Your task to perform on an android device: Go to Google maps Image 0: 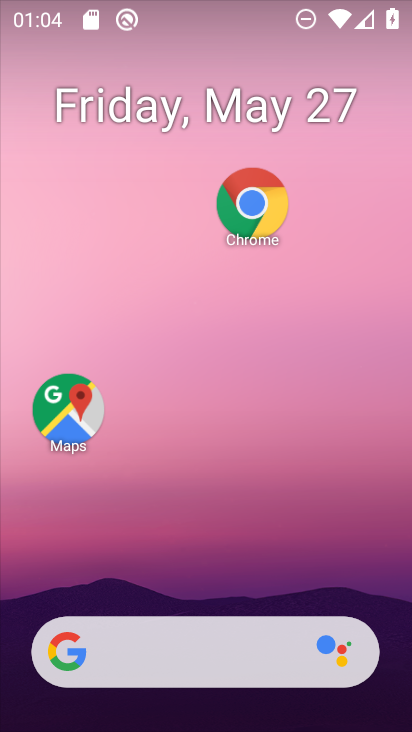
Step 0: drag from (166, 596) to (107, 109)
Your task to perform on an android device: Go to Google maps Image 1: 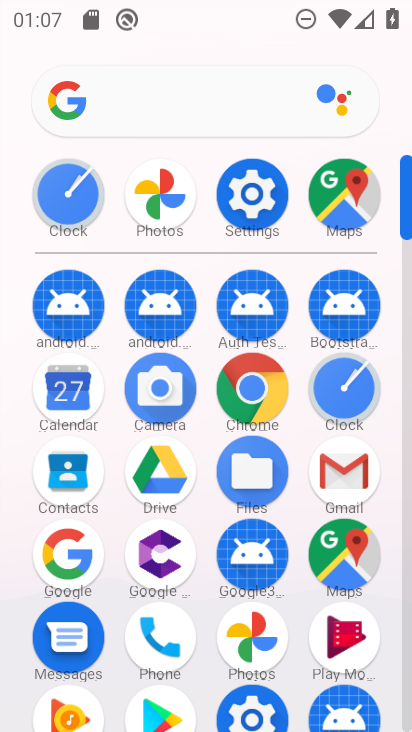
Step 1: click (357, 551)
Your task to perform on an android device: Go to Google maps Image 2: 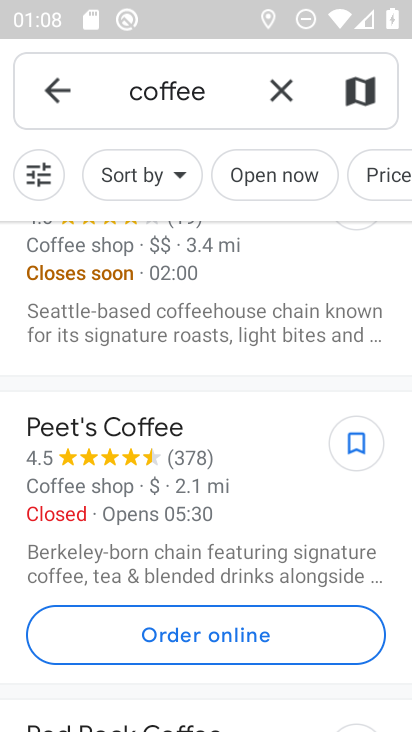
Step 2: task complete